Your task to perform on an android device: check storage Image 0: 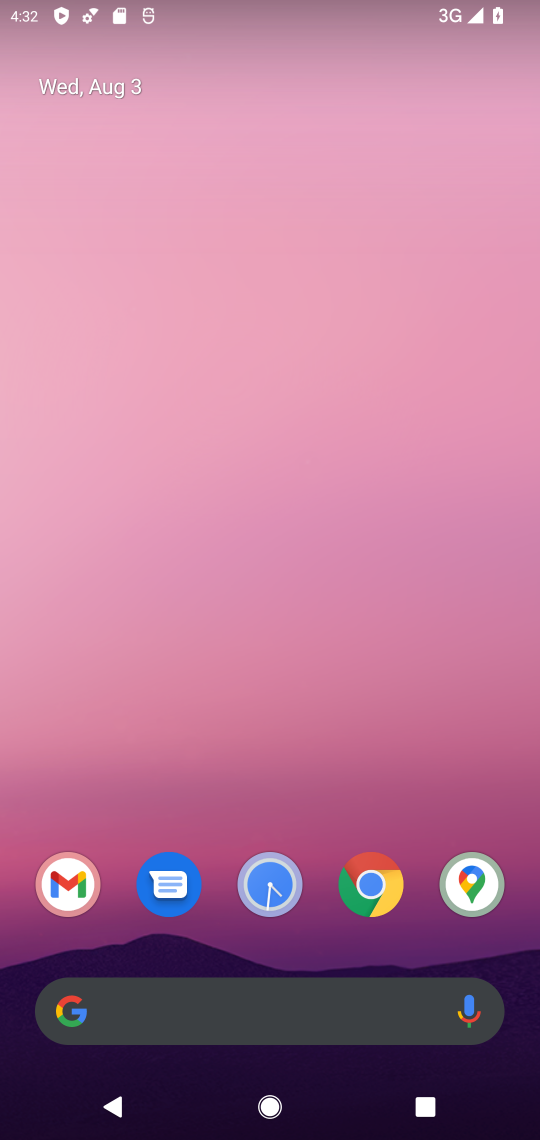
Step 0: task complete